Your task to perform on an android device: Open ESPN.com Image 0: 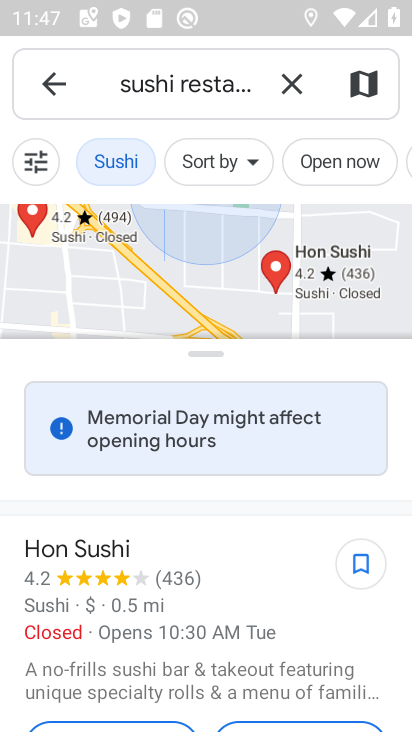
Step 0: press home button
Your task to perform on an android device: Open ESPN.com Image 1: 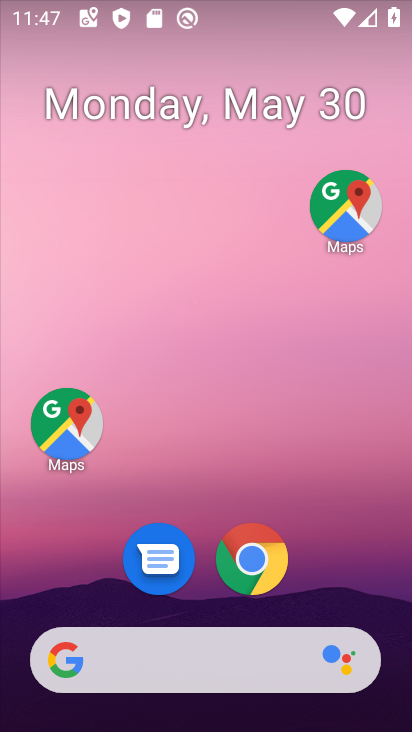
Step 1: click (260, 554)
Your task to perform on an android device: Open ESPN.com Image 2: 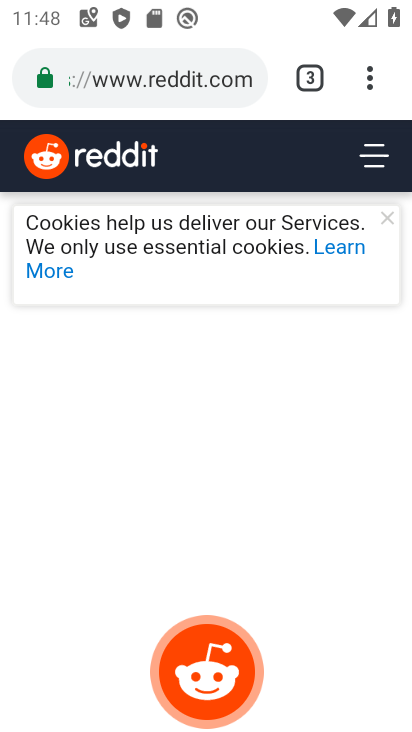
Step 2: click (197, 69)
Your task to perform on an android device: Open ESPN.com Image 3: 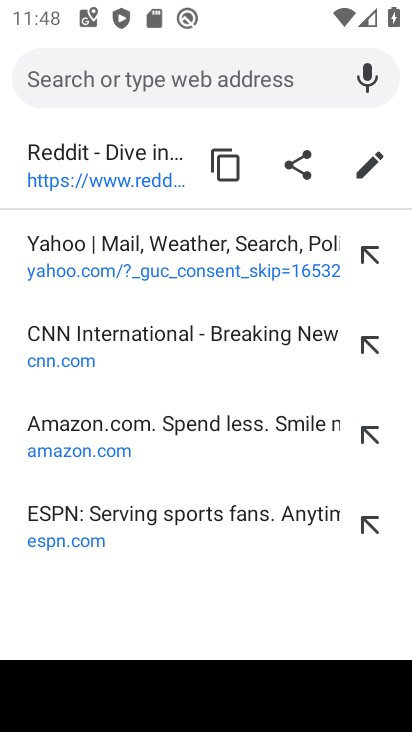
Step 3: click (78, 541)
Your task to perform on an android device: Open ESPN.com Image 4: 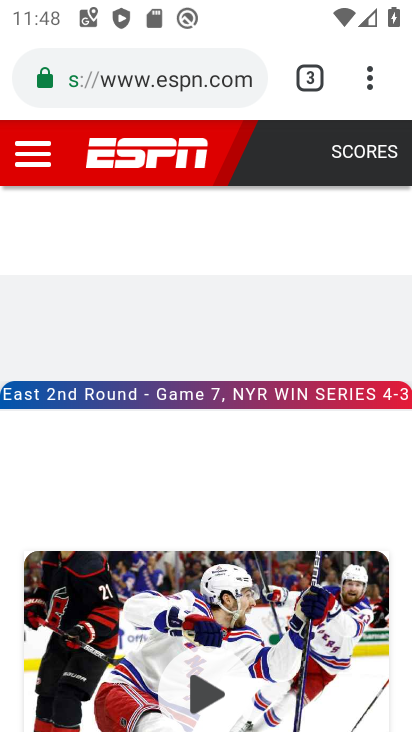
Step 4: task complete